Your task to perform on an android device: turn off sleep mode Image 0: 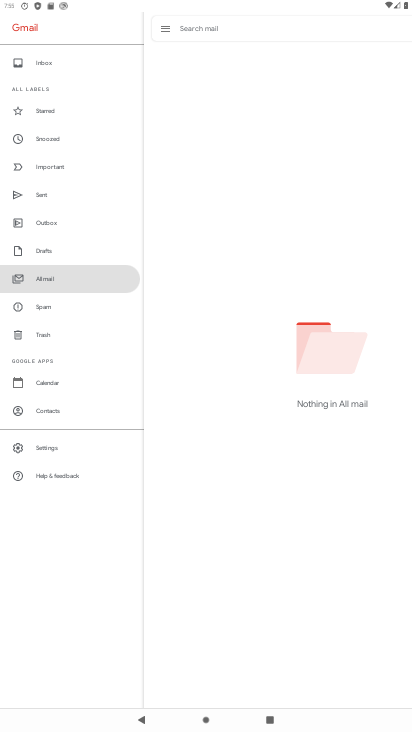
Step 0: press home button
Your task to perform on an android device: turn off sleep mode Image 1: 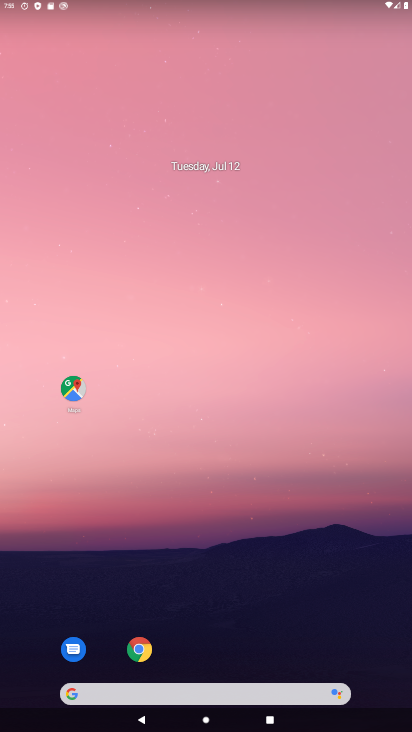
Step 1: drag from (260, 671) to (211, 198)
Your task to perform on an android device: turn off sleep mode Image 2: 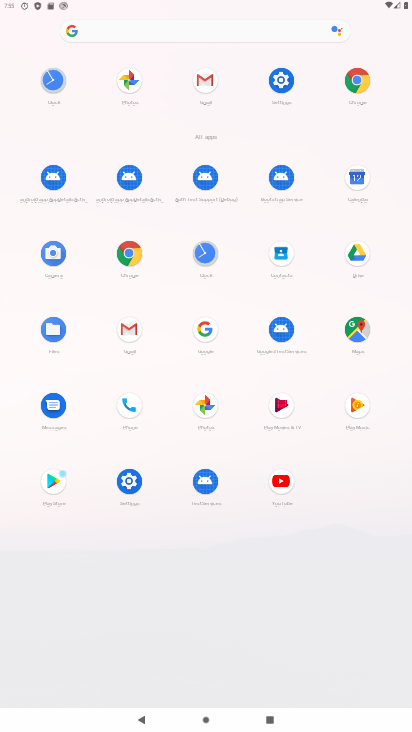
Step 2: click (271, 80)
Your task to perform on an android device: turn off sleep mode Image 3: 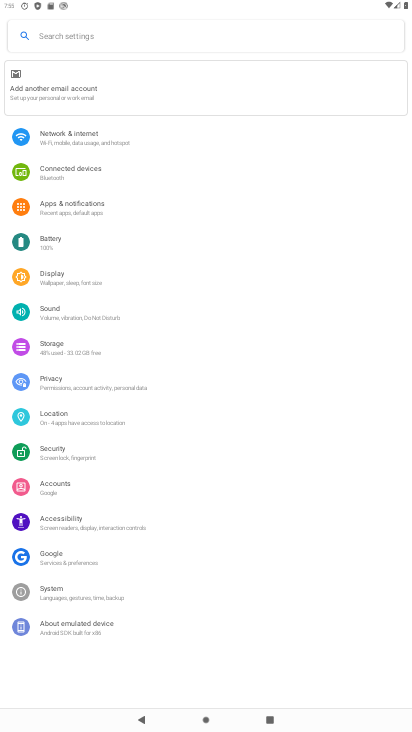
Step 3: click (73, 284)
Your task to perform on an android device: turn off sleep mode Image 4: 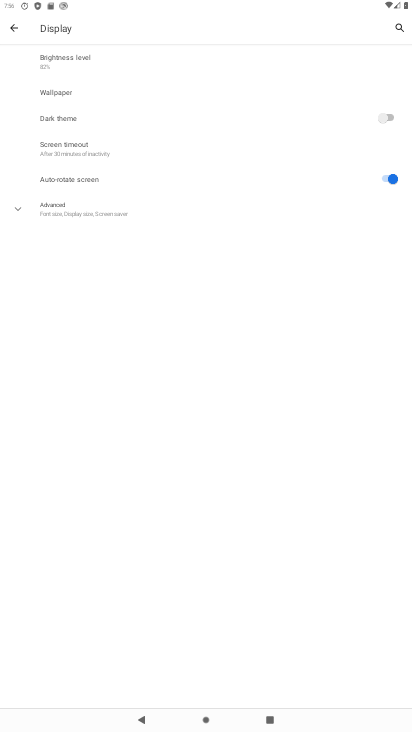
Step 4: click (84, 141)
Your task to perform on an android device: turn off sleep mode Image 5: 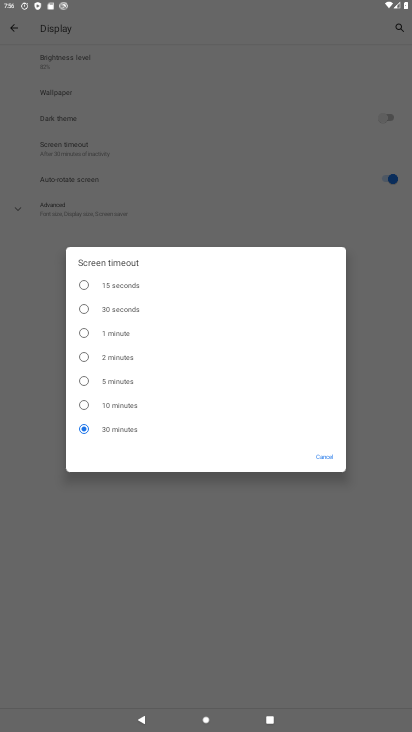
Step 5: task complete